Your task to perform on an android device: Show me popular games on the Play Store Image 0: 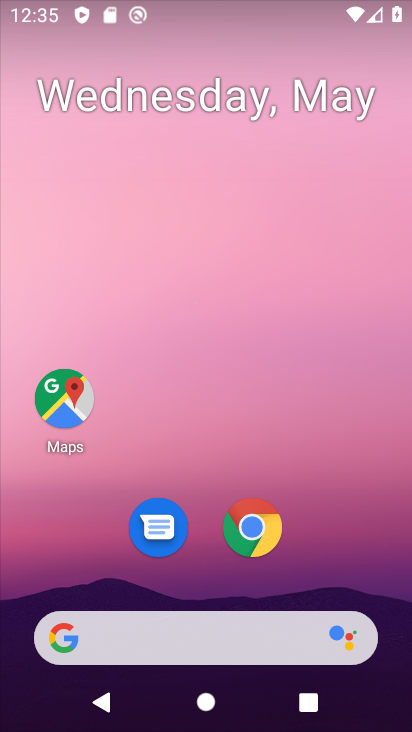
Step 0: drag from (331, 570) to (250, 129)
Your task to perform on an android device: Show me popular games on the Play Store Image 1: 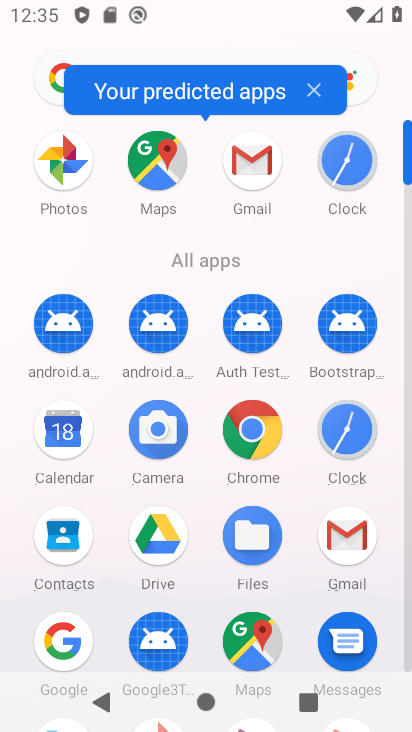
Step 1: drag from (115, 615) to (105, 211)
Your task to perform on an android device: Show me popular games on the Play Store Image 2: 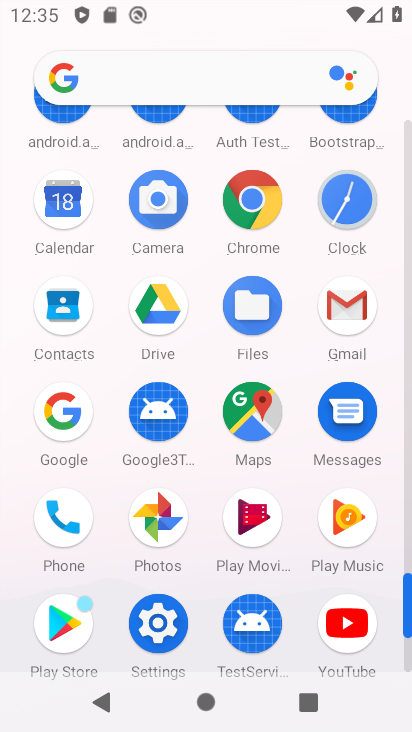
Step 2: click (68, 619)
Your task to perform on an android device: Show me popular games on the Play Store Image 3: 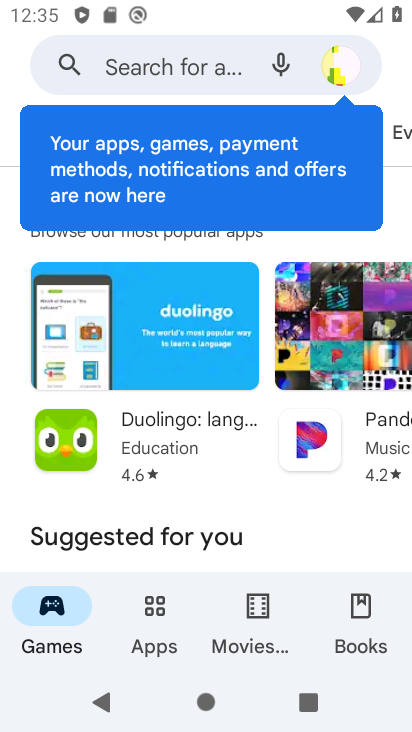
Step 3: drag from (186, 548) to (186, 496)
Your task to perform on an android device: Show me popular games on the Play Store Image 4: 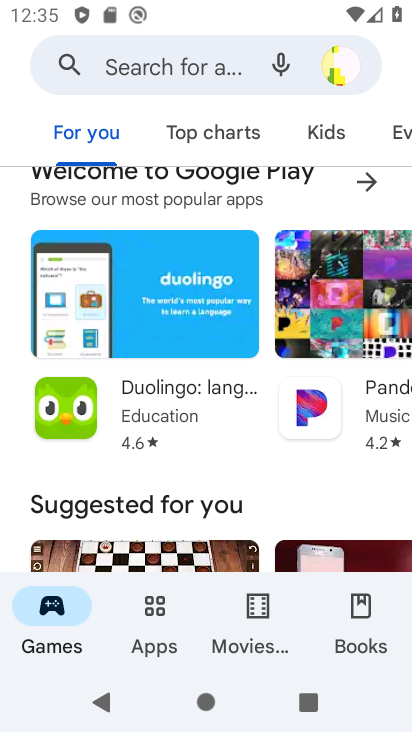
Step 4: click (201, 121)
Your task to perform on an android device: Show me popular games on the Play Store Image 5: 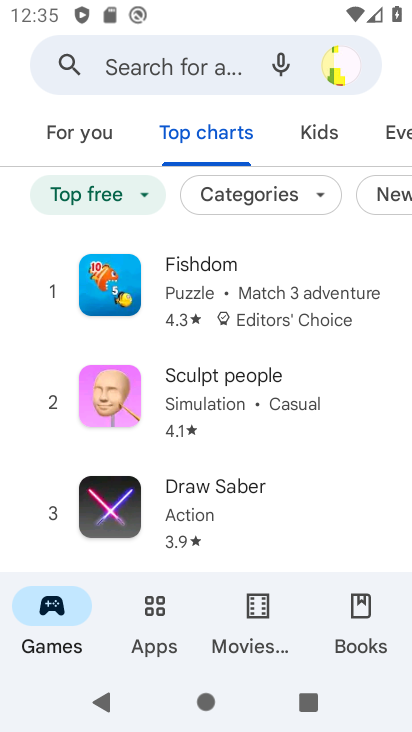
Step 5: task complete